Your task to perform on an android device: turn notification dots off Image 0: 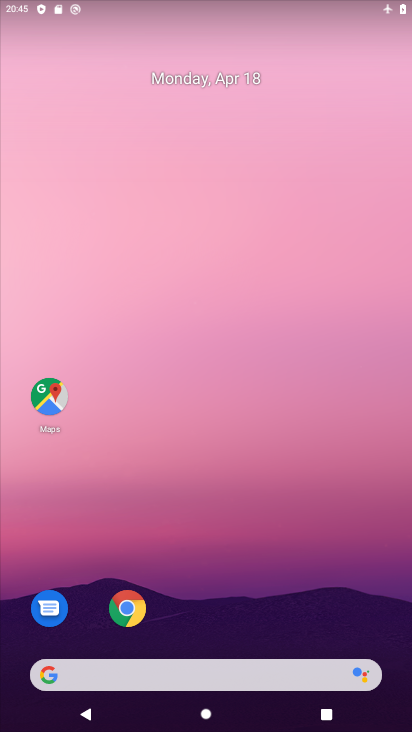
Step 0: drag from (227, 100) to (253, 133)
Your task to perform on an android device: turn notification dots off Image 1: 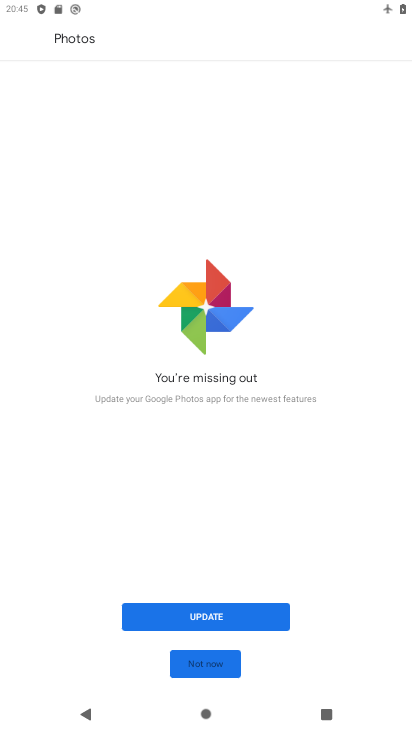
Step 1: press home button
Your task to perform on an android device: turn notification dots off Image 2: 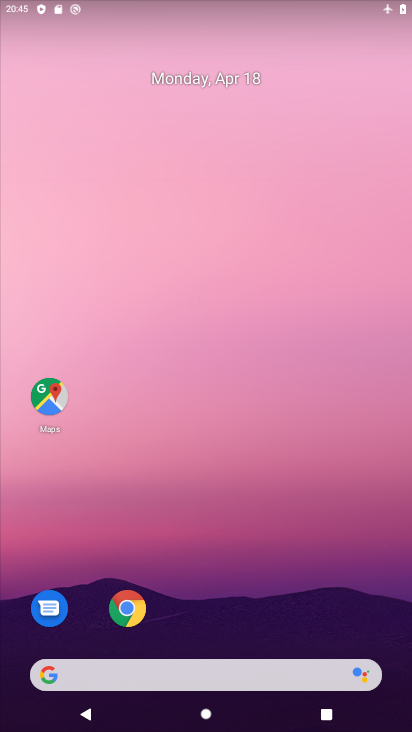
Step 2: drag from (208, 394) to (209, 173)
Your task to perform on an android device: turn notification dots off Image 3: 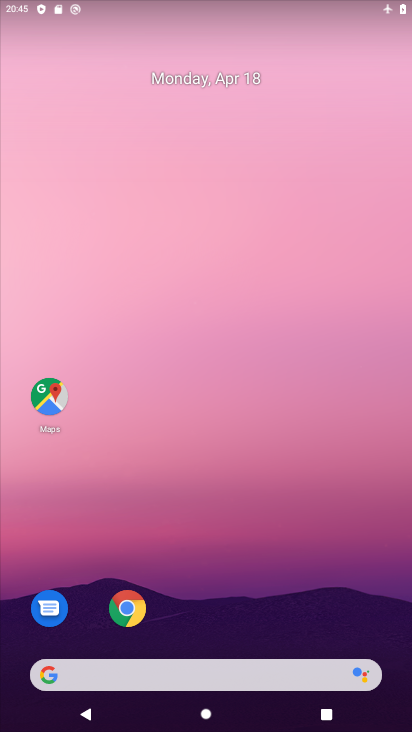
Step 3: drag from (239, 622) to (251, 255)
Your task to perform on an android device: turn notification dots off Image 4: 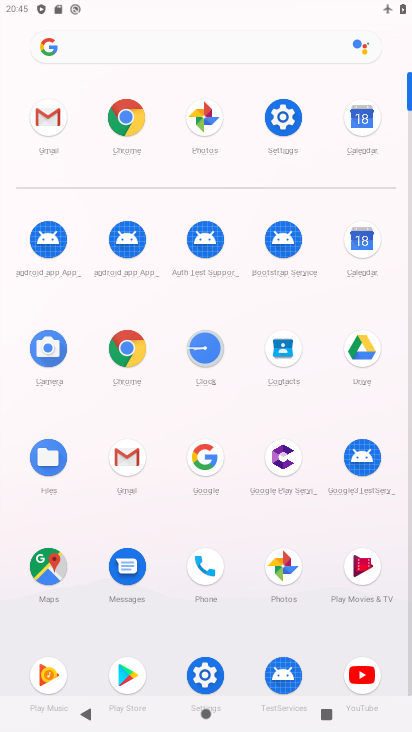
Step 4: click (288, 118)
Your task to perform on an android device: turn notification dots off Image 5: 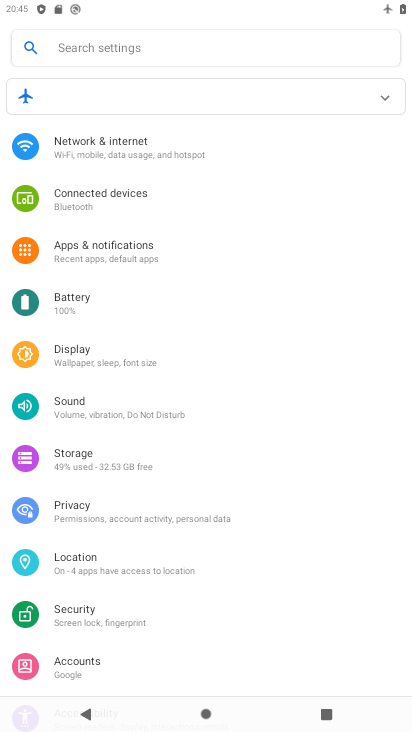
Step 5: click (104, 253)
Your task to perform on an android device: turn notification dots off Image 6: 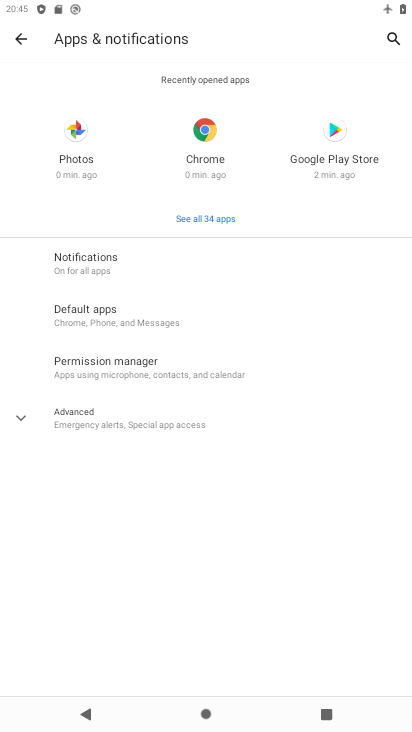
Step 6: click (114, 265)
Your task to perform on an android device: turn notification dots off Image 7: 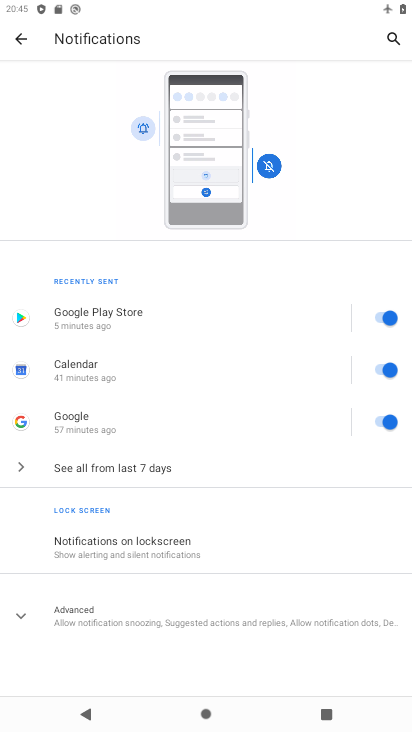
Step 7: click (156, 548)
Your task to perform on an android device: turn notification dots off Image 8: 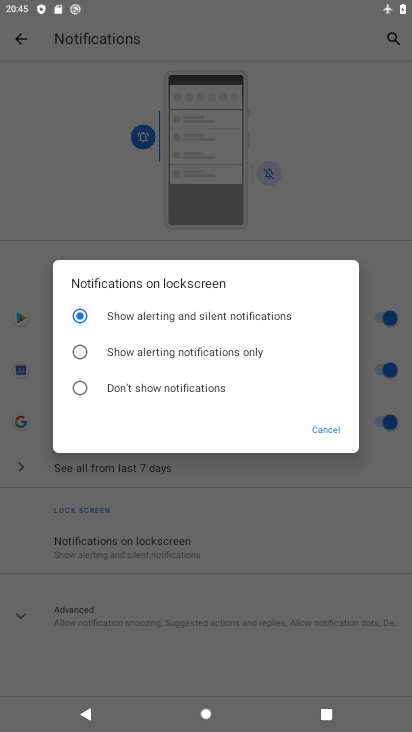
Step 8: click (307, 521)
Your task to perform on an android device: turn notification dots off Image 9: 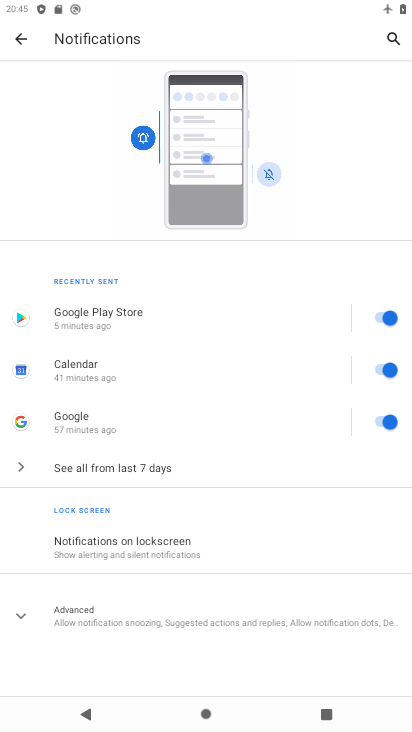
Step 9: click (95, 619)
Your task to perform on an android device: turn notification dots off Image 10: 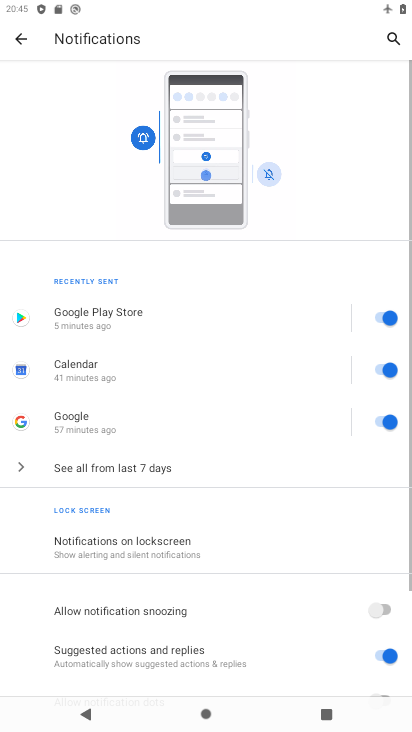
Step 10: task complete